Your task to perform on an android device: Empty the shopping cart on newegg. Add "jbl flip 4" to the cart on newegg, then select checkout. Image 0: 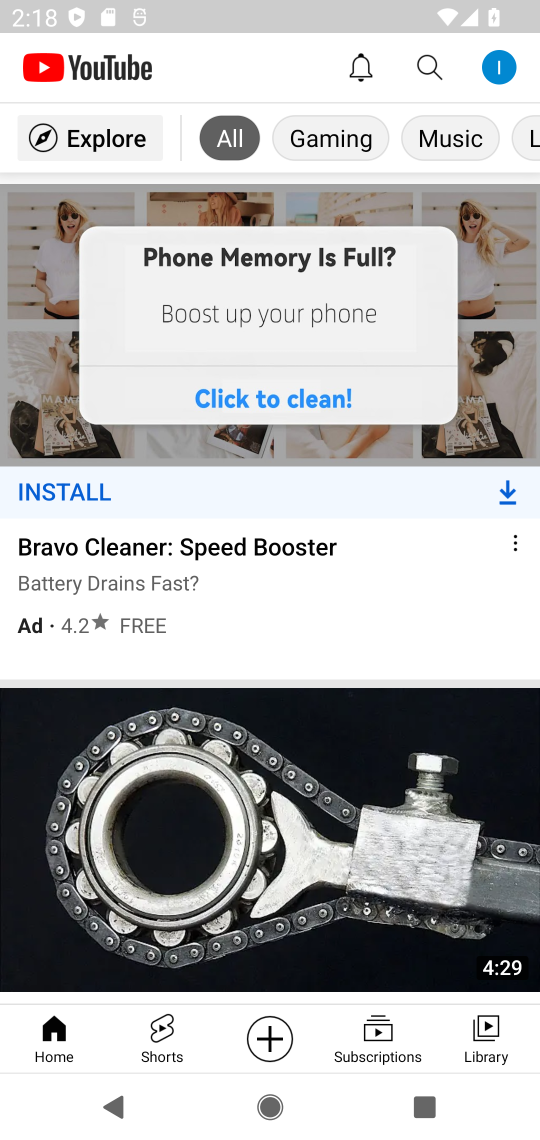
Step 0: press home button
Your task to perform on an android device: Empty the shopping cart on newegg. Add "jbl flip 4" to the cart on newegg, then select checkout. Image 1: 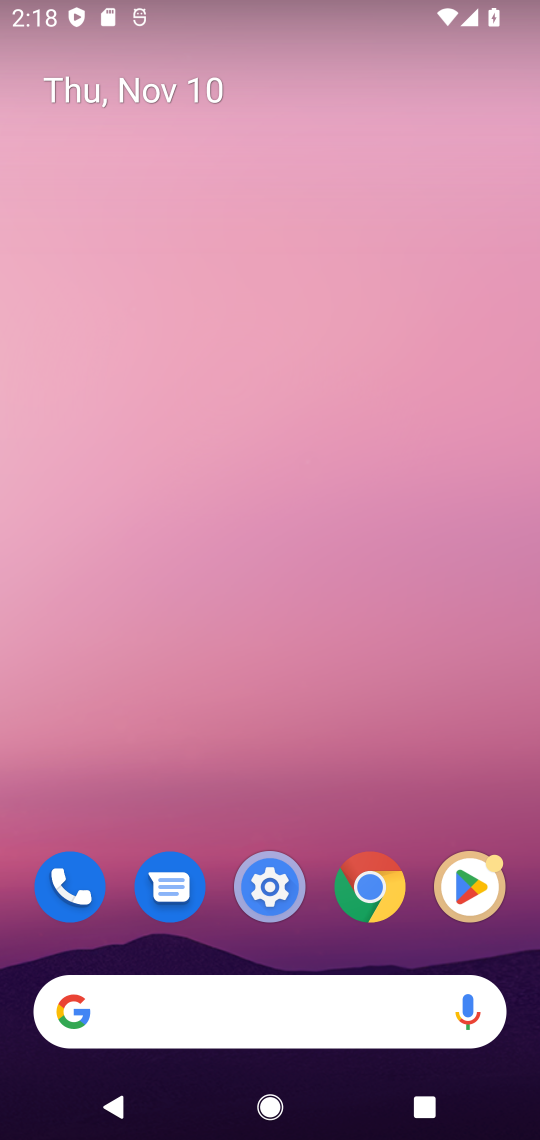
Step 1: drag from (313, 957) to (311, 22)
Your task to perform on an android device: Empty the shopping cart on newegg. Add "jbl flip 4" to the cart on newegg, then select checkout. Image 2: 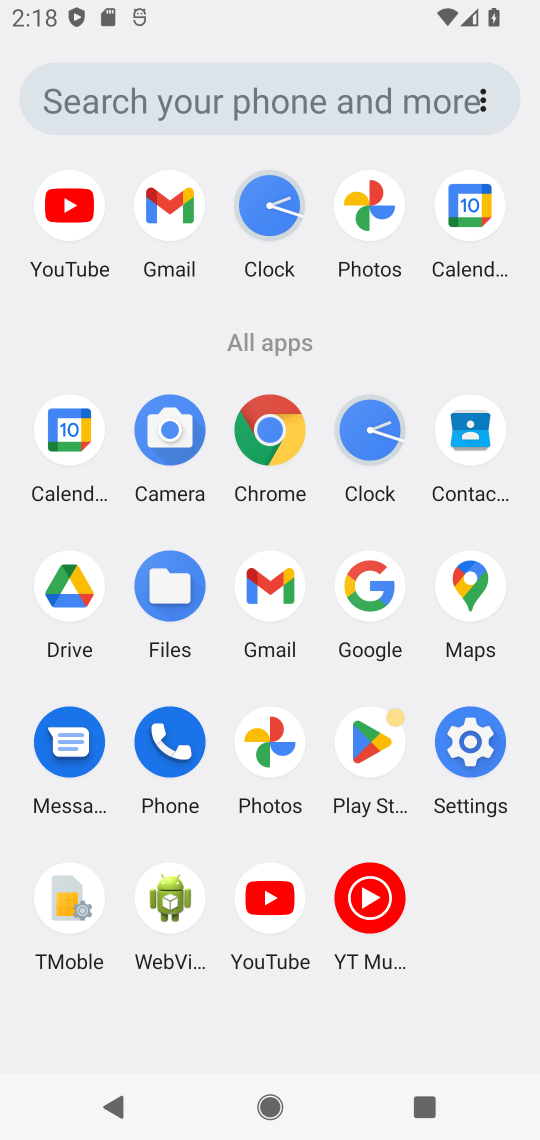
Step 2: click (272, 439)
Your task to perform on an android device: Empty the shopping cart on newegg. Add "jbl flip 4" to the cart on newegg, then select checkout. Image 3: 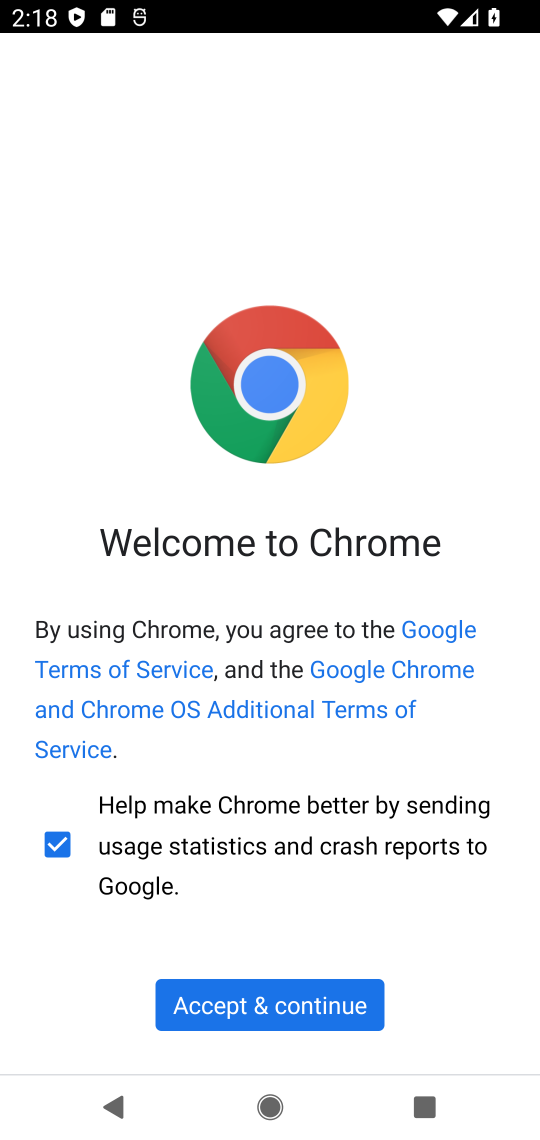
Step 3: click (353, 1005)
Your task to perform on an android device: Empty the shopping cart on newegg. Add "jbl flip 4" to the cart on newegg, then select checkout. Image 4: 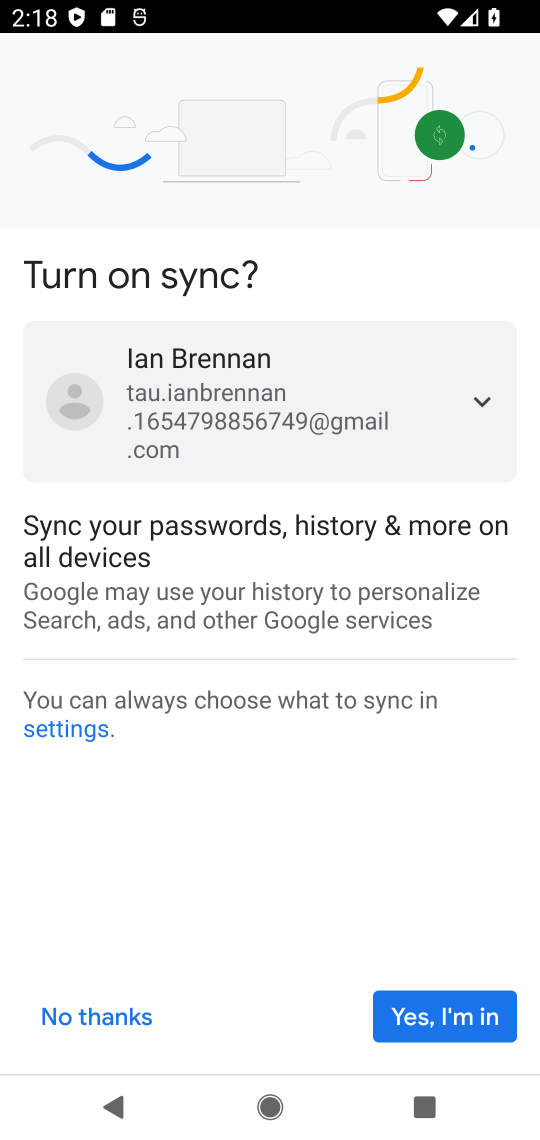
Step 4: click (446, 1025)
Your task to perform on an android device: Empty the shopping cart on newegg. Add "jbl flip 4" to the cart on newegg, then select checkout. Image 5: 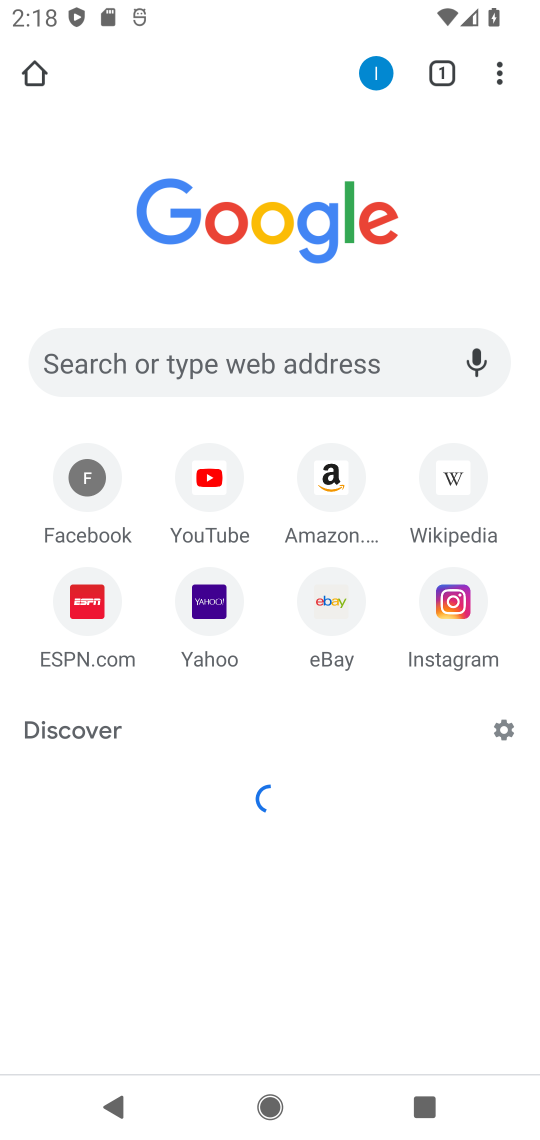
Step 5: click (240, 352)
Your task to perform on an android device: Empty the shopping cart on newegg. Add "jbl flip 4" to the cart on newegg, then select checkout. Image 6: 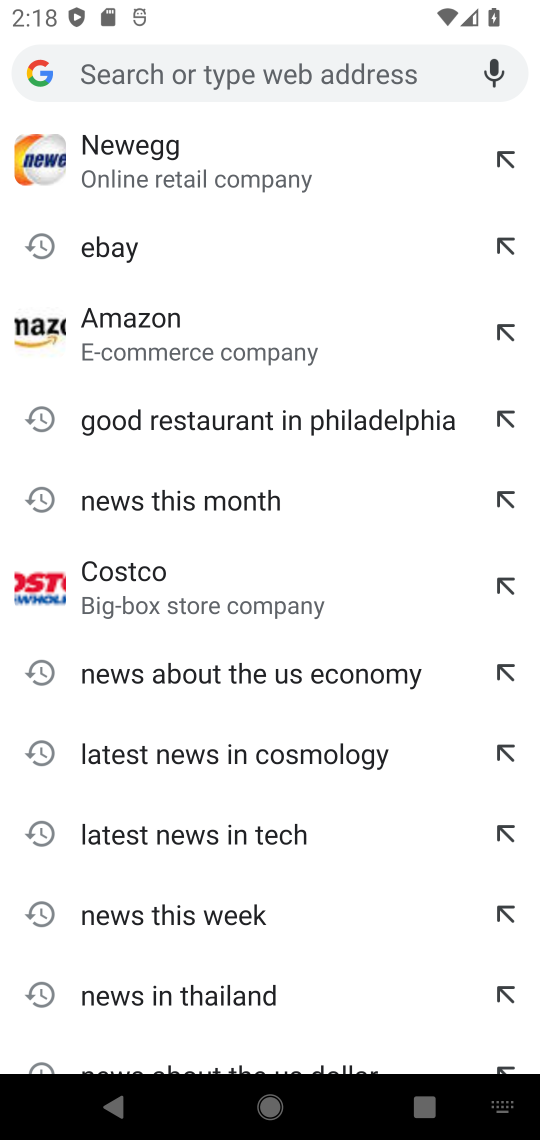
Step 6: type "newegg.com"
Your task to perform on an android device: Empty the shopping cart on newegg. Add "jbl flip 4" to the cart on newegg, then select checkout. Image 7: 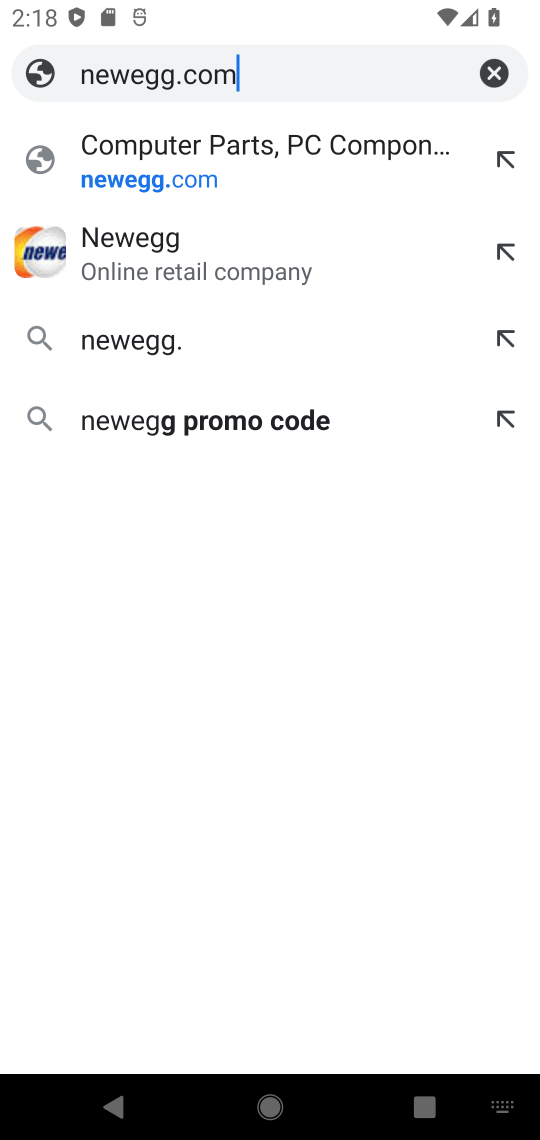
Step 7: press enter
Your task to perform on an android device: Empty the shopping cart on newegg. Add "jbl flip 4" to the cart on newegg, then select checkout. Image 8: 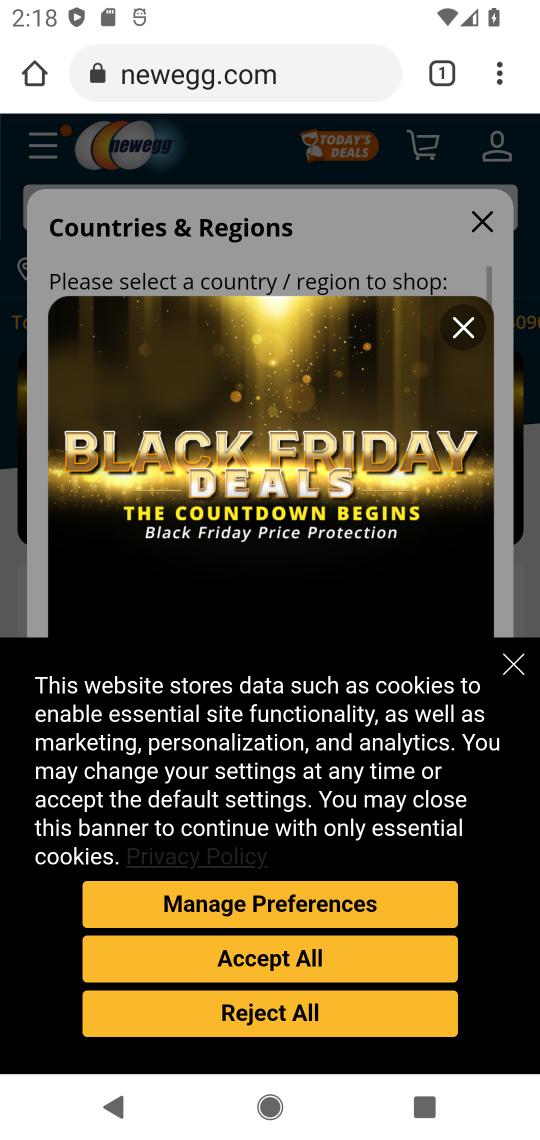
Step 8: click (477, 228)
Your task to perform on an android device: Empty the shopping cart on newegg. Add "jbl flip 4" to the cart on newegg, then select checkout. Image 9: 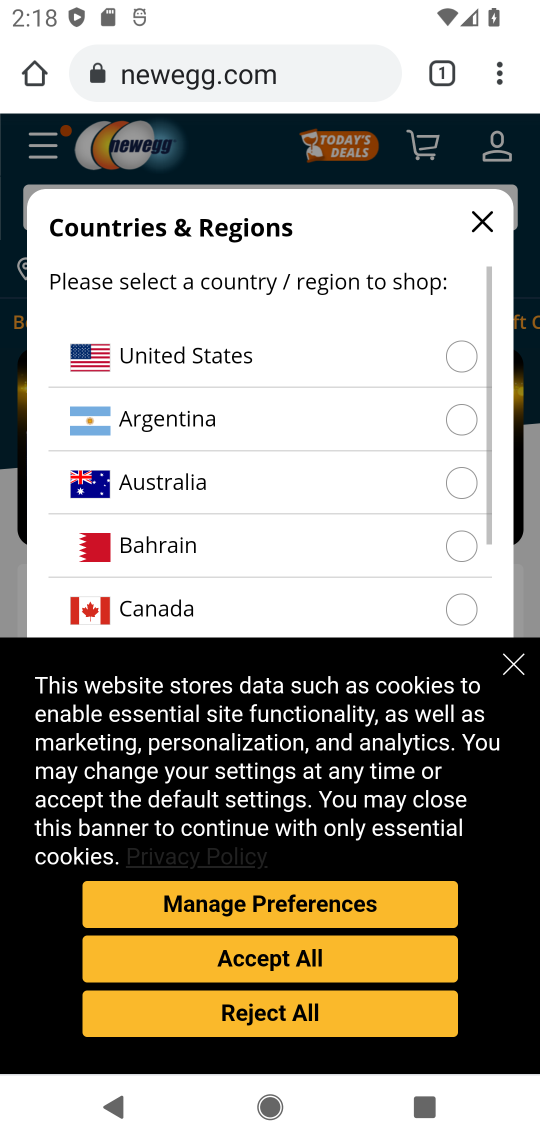
Step 9: click (483, 231)
Your task to perform on an android device: Empty the shopping cart on newegg. Add "jbl flip 4" to the cart on newegg, then select checkout. Image 10: 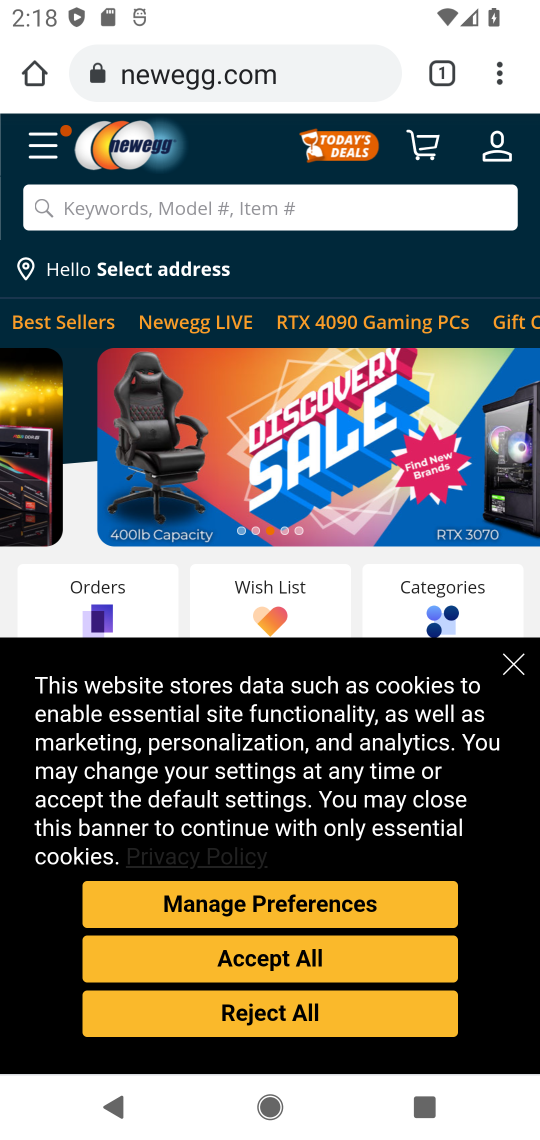
Step 10: click (392, 209)
Your task to perform on an android device: Empty the shopping cart on newegg. Add "jbl flip 4" to the cart on newegg, then select checkout. Image 11: 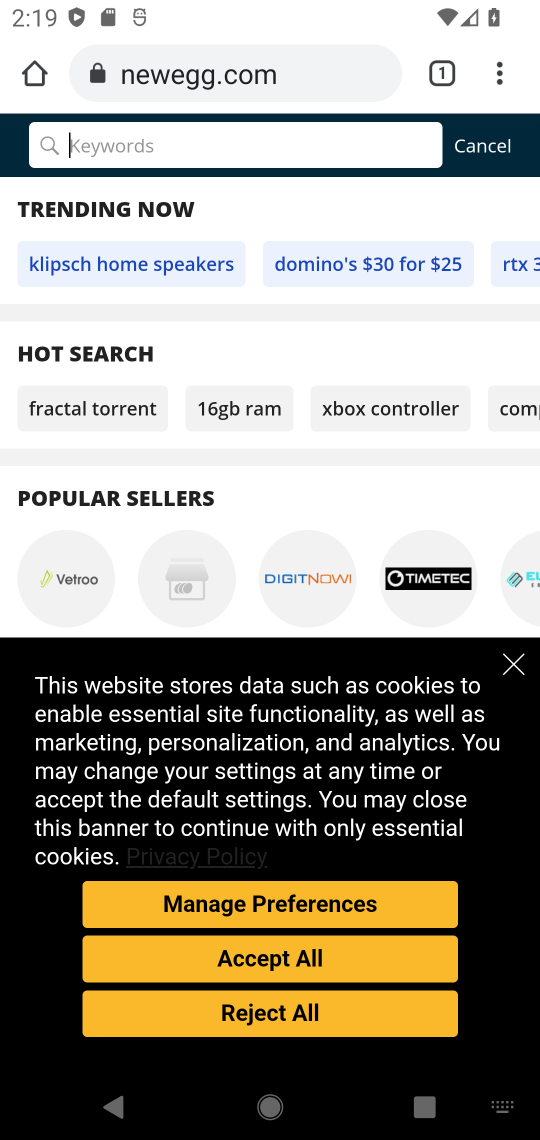
Step 11: type "jbl flip 4"
Your task to perform on an android device: Empty the shopping cart on newegg. Add "jbl flip 4" to the cart on newegg, then select checkout. Image 12: 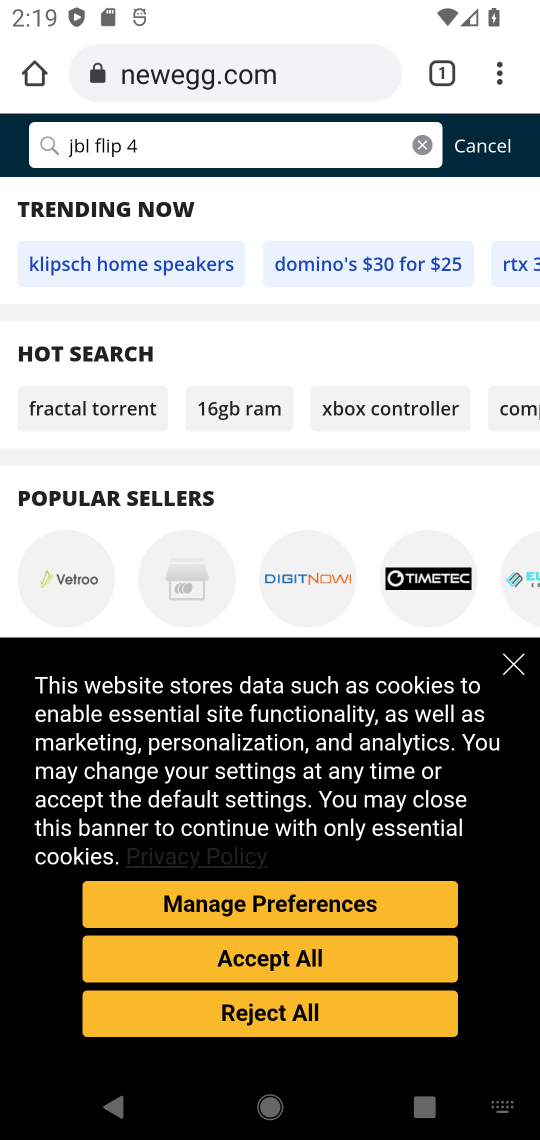
Step 12: press enter
Your task to perform on an android device: Empty the shopping cart on newegg. Add "jbl flip 4" to the cart on newegg, then select checkout. Image 13: 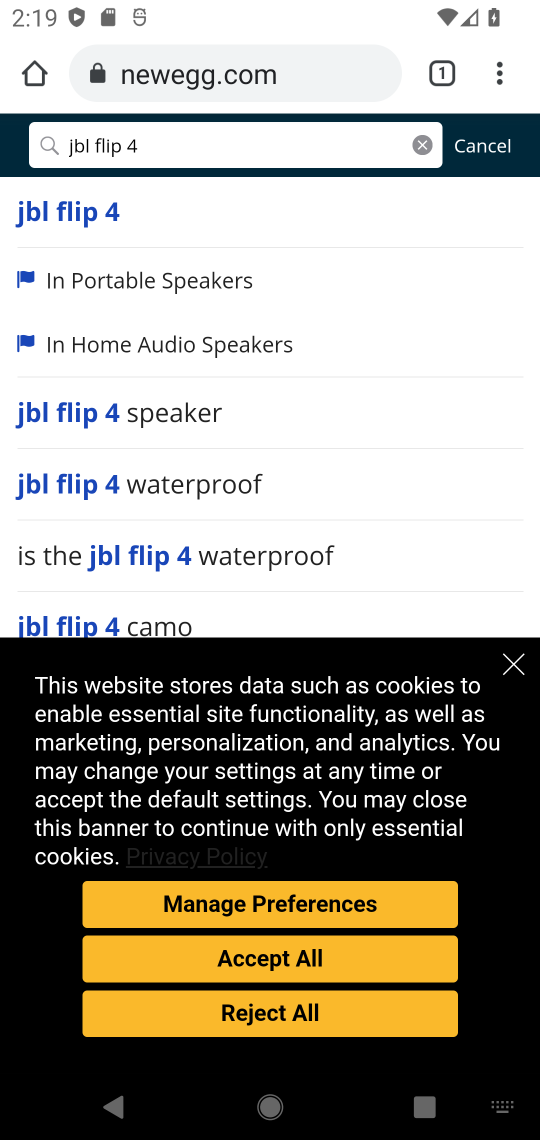
Step 13: click (248, 962)
Your task to perform on an android device: Empty the shopping cart on newegg. Add "jbl flip 4" to the cart on newegg, then select checkout. Image 14: 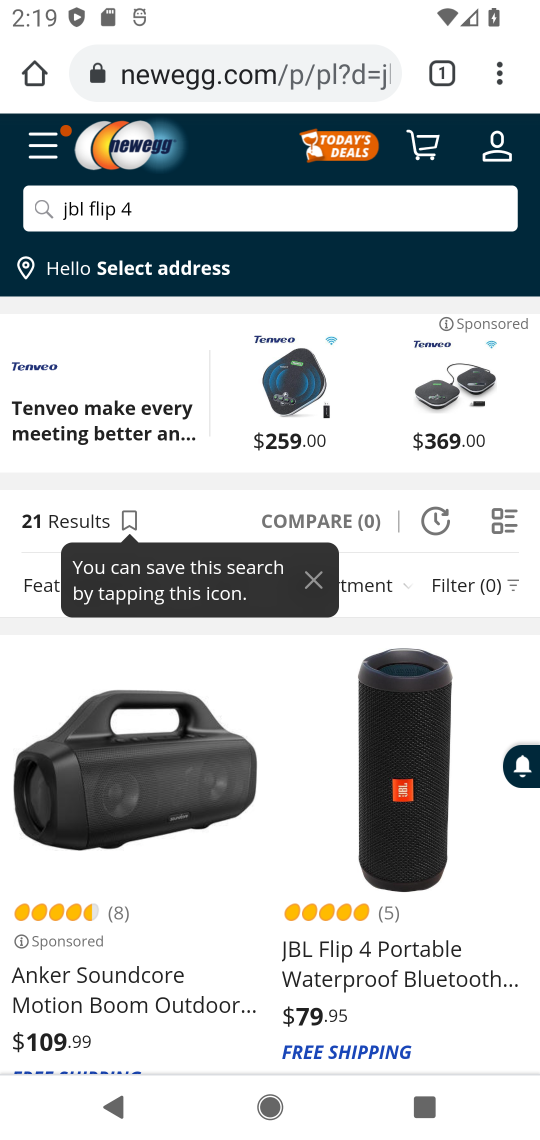
Step 14: drag from (372, 970) to (395, 572)
Your task to perform on an android device: Empty the shopping cart on newegg. Add "jbl flip 4" to the cart on newegg, then select checkout. Image 15: 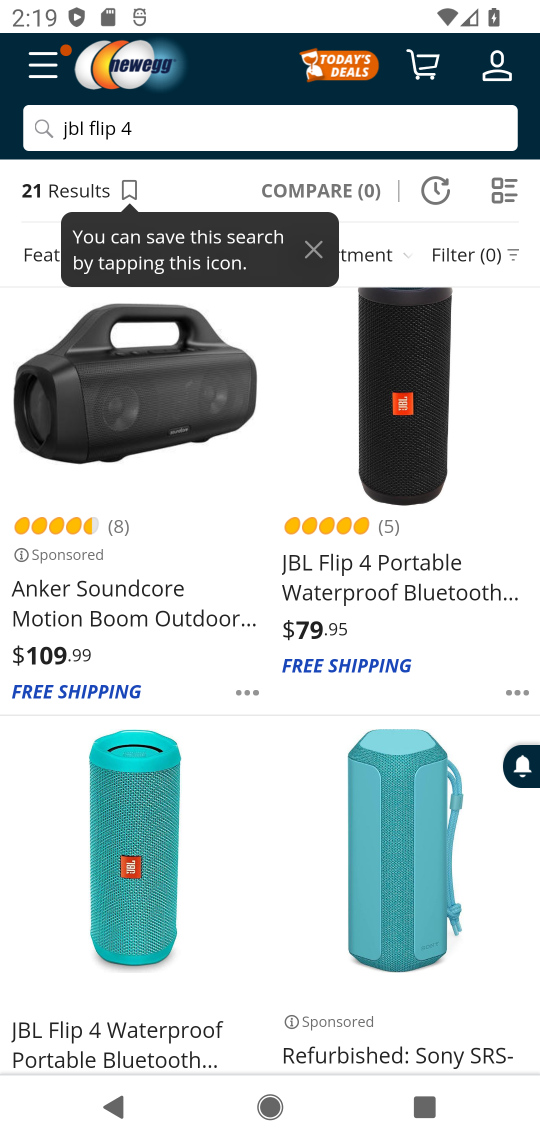
Step 15: click (384, 583)
Your task to perform on an android device: Empty the shopping cart on newegg. Add "jbl flip 4" to the cart on newegg, then select checkout. Image 16: 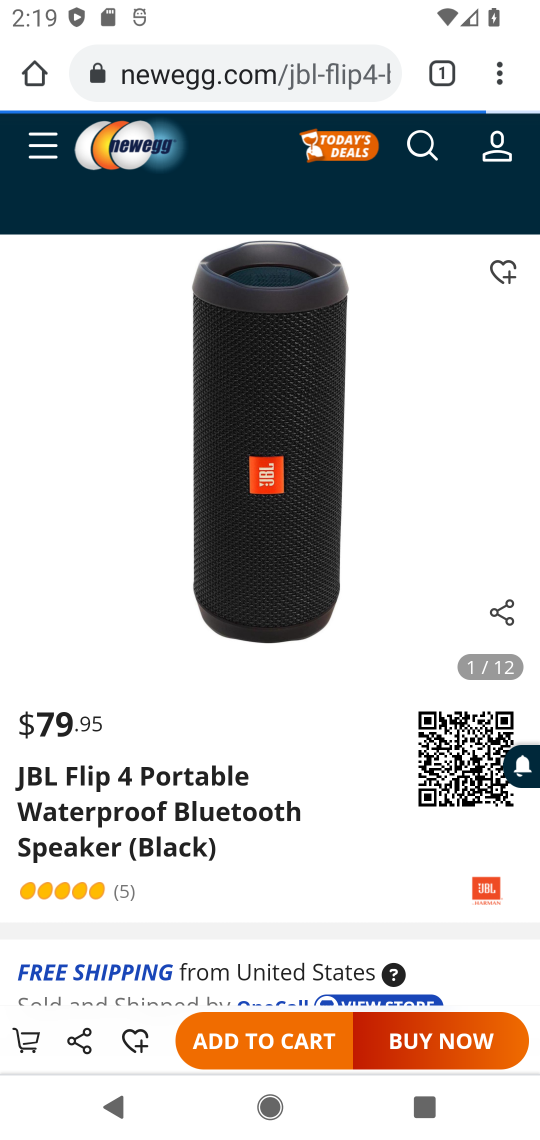
Step 16: drag from (343, 862) to (344, 356)
Your task to perform on an android device: Empty the shopping cart on newegg. Add "jbl flip 4" to the cart on newegg, then select checkout. Image 17: 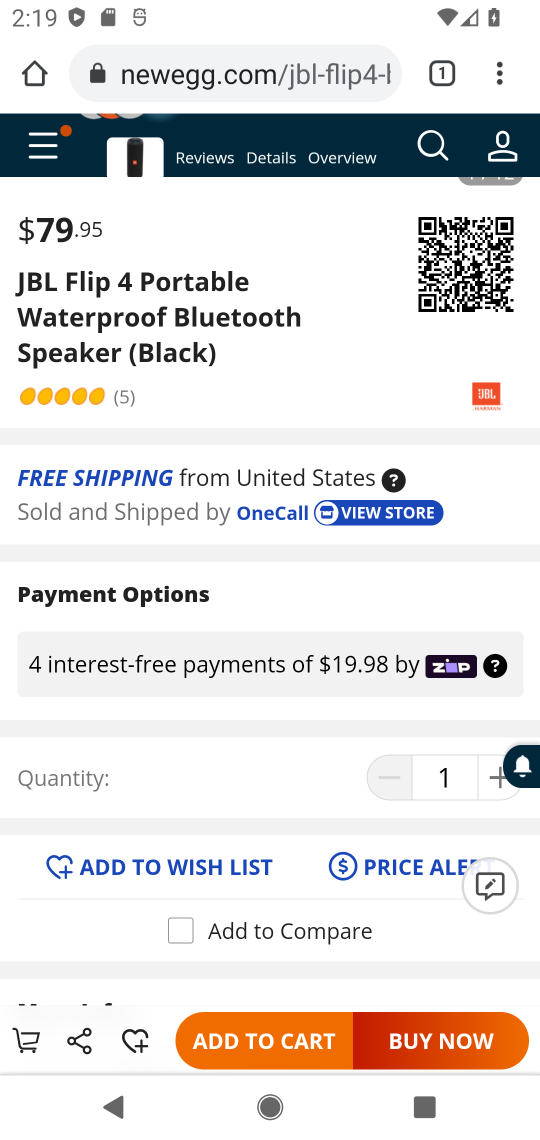
Step 17: click (274, 1054)
Your task to perform on an android device: Empty the shopping cart on newegg. Add "jbl flip 4" to the cart on newegg, then select checkout. Image 18: 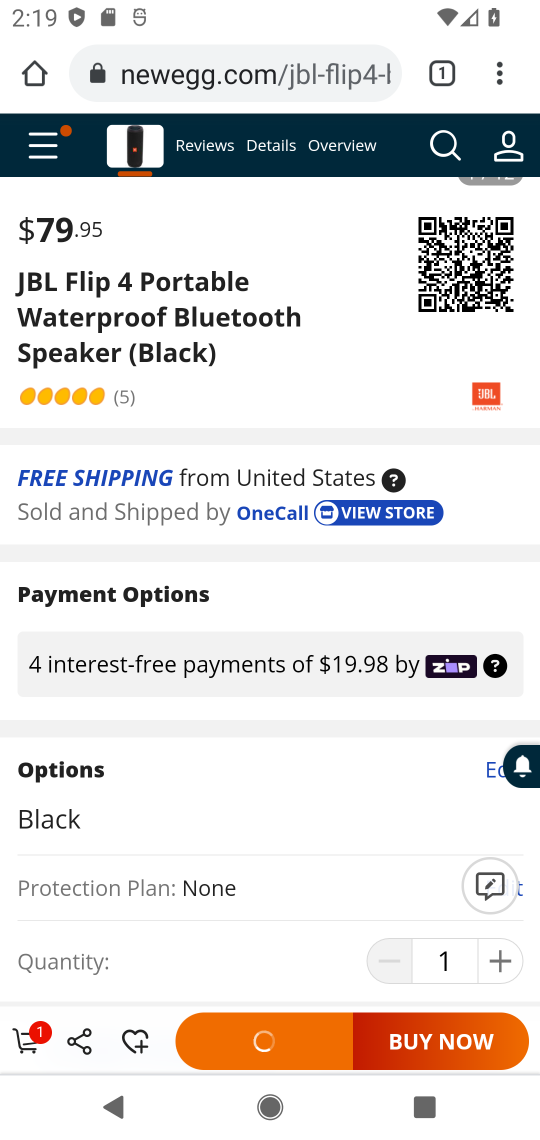
Step 18: click (31, 1045)
Your task to perform on an android device: Empty the shopping cart on newegg. Add "jbl flip 4" to the cart on newegg, then select checkout. Image 19: 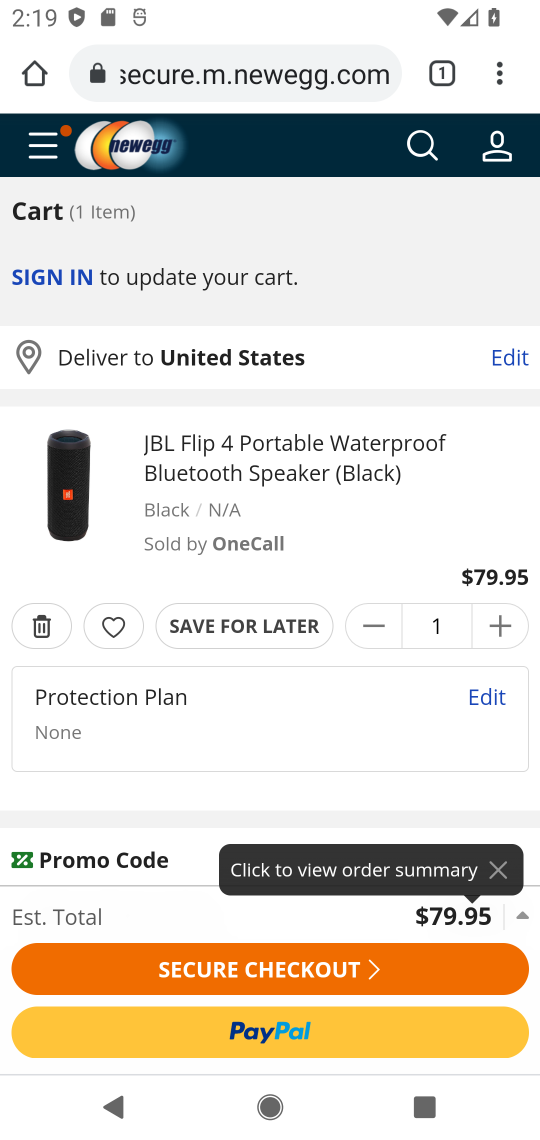
Step 19: click (303, 1022)
Your task to perform on an android device: Empty the shopping cart on newegg. Add "jbl flip 4" to the cart on newegg, then select checkout. Image 20: 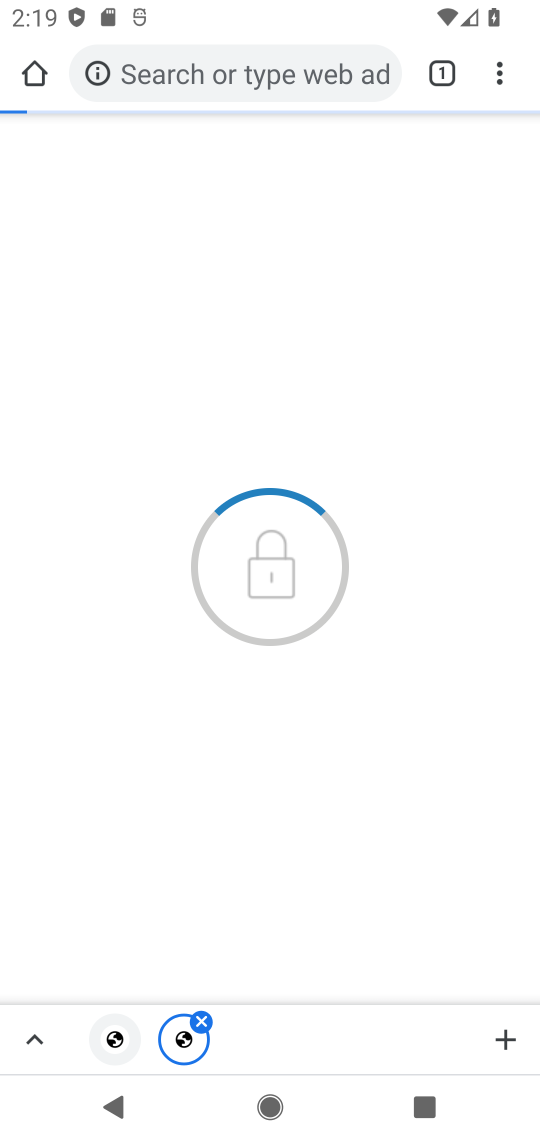
Step 20: press back button
Your task to perform on an android device: Empty the shopping cart on newegg. Add "jbl flip 4" to the cart on newegg, then select checkout. Image 21: 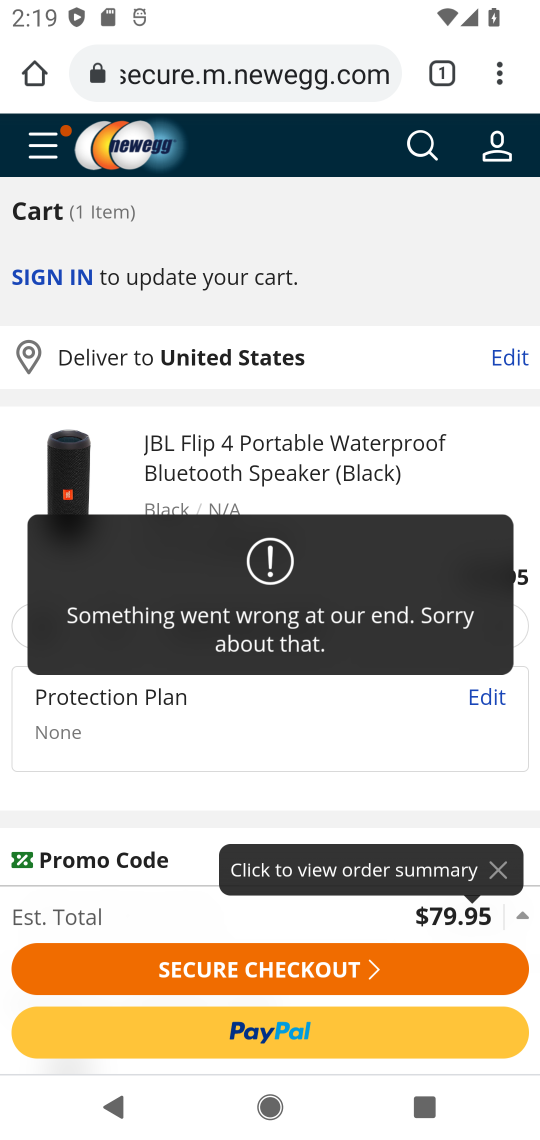
Step 21: click (322, 972)
Your task to perform on an android device: Empty the shopping cart on newegg. Add "jbl flip 4" to the cart on newegg, then select checkout. Image 22: 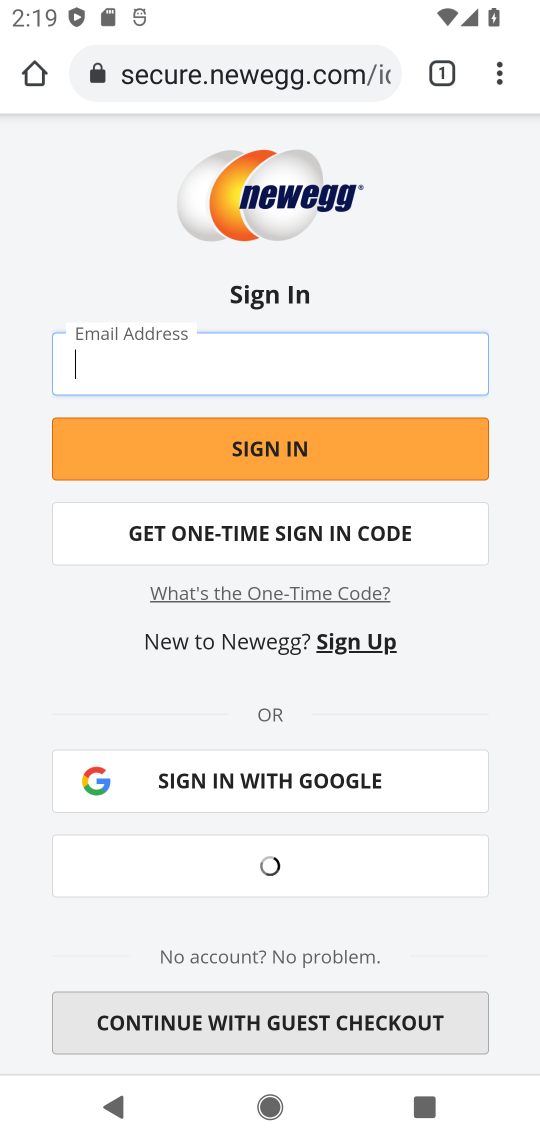
Step 22: task complete